Your task to perform on an android device: Do I have any events today? Image 0: 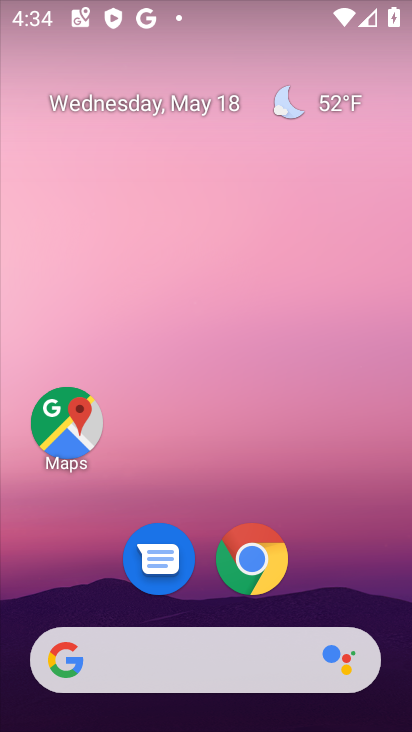
Step 0: drag from (236, 333) to (301, 36)
Your task to perform on an android device: Do I have any events today? Image 1: 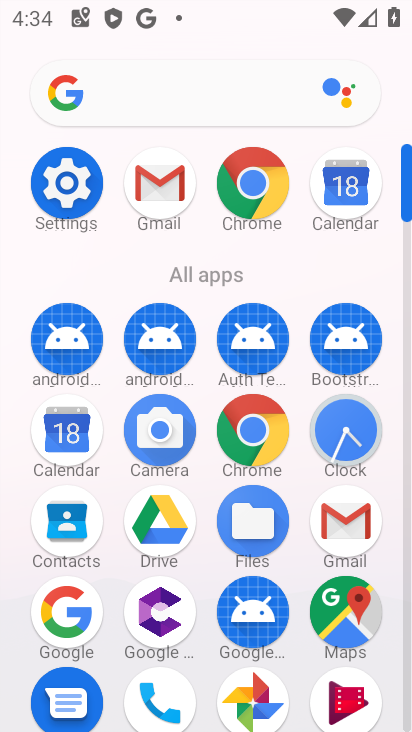
Step 1: click (64, 433)
Your task to perform on an android device: Do I have any events today? Image 2: 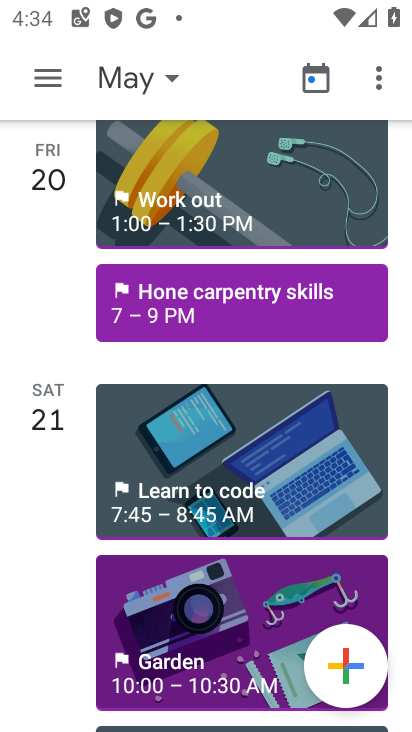
Step 2: task complete